Your task to perform on an android device: Open Maps and search for coffee Image 0: 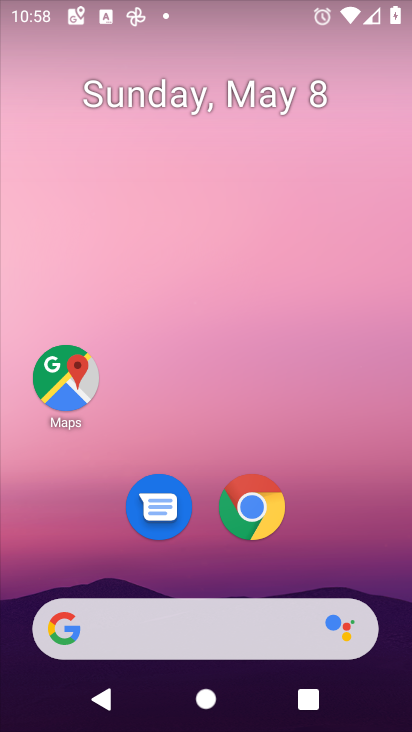
Step 0: click (68, 382)
Your task to perform on an android device: Open Maps and search for coffee Image 1: 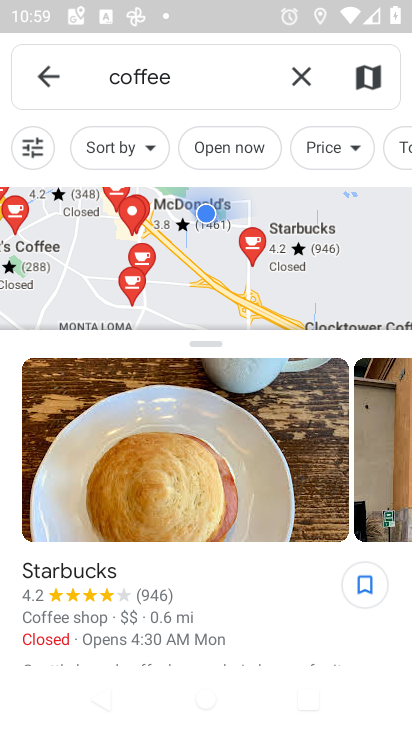
Step 1: click (264, 75)
Your task to perform on an android device: Open Maps and search for coffee Image 2: 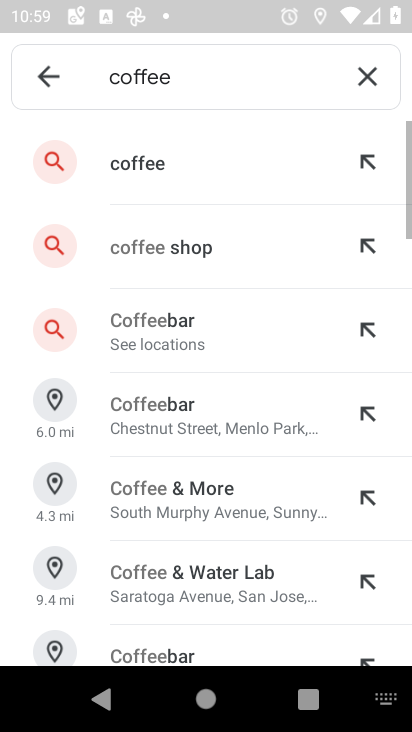
Step 2: click (218, 173)
Your task to perform on an android device: Open Maps and search for coffee Image 3: 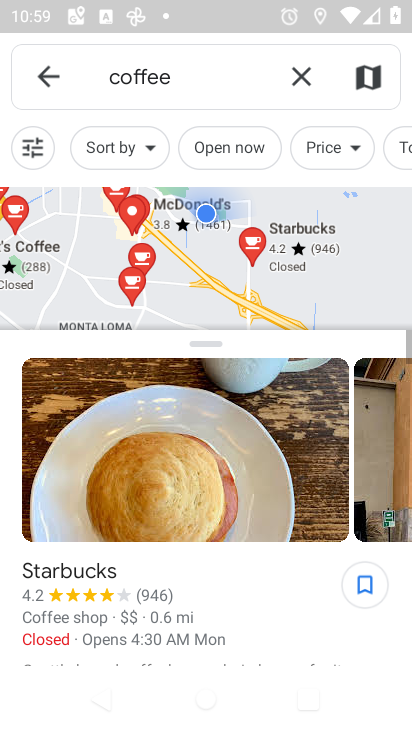
Step 3: task complete